Your task to perform on an android device: all mails in gmail Image 0: 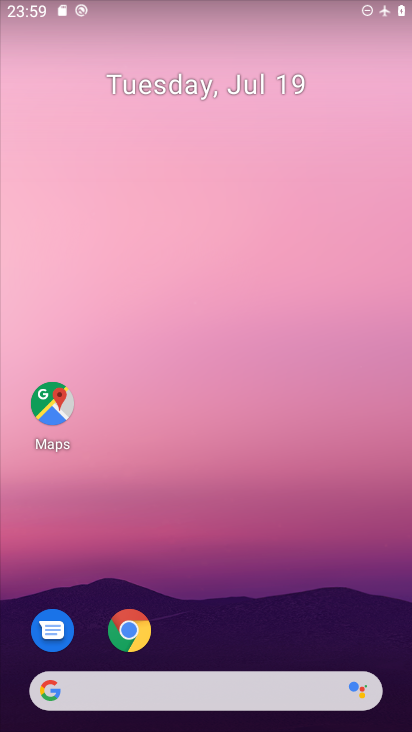
Step 0: drag from (193, 630) to (195, 151)
Your task to perform on an android device: all mails in gmail Image 1: 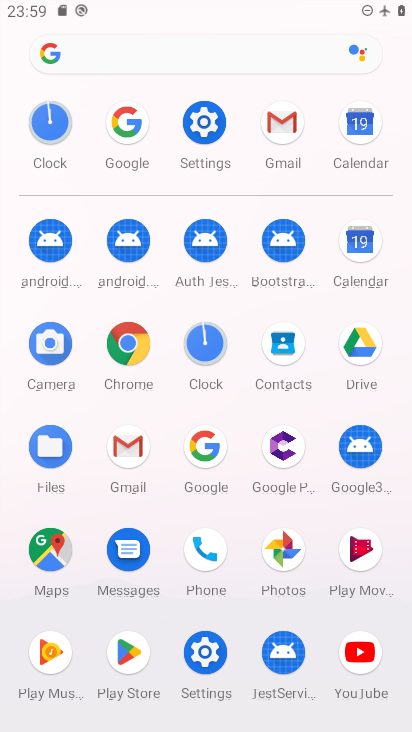
Step 1: click (289, 153)
Your task to perform on an android device: all mails in gmail Image 2: 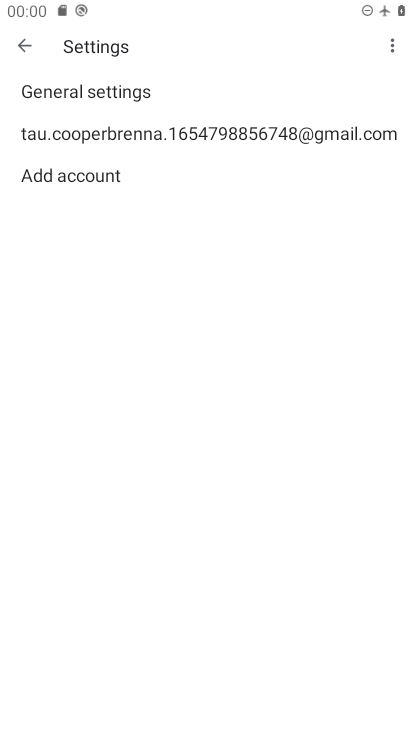
Step 2: click (21, 42)
Your task to perform on an android device: all mails in gmail Image 3: 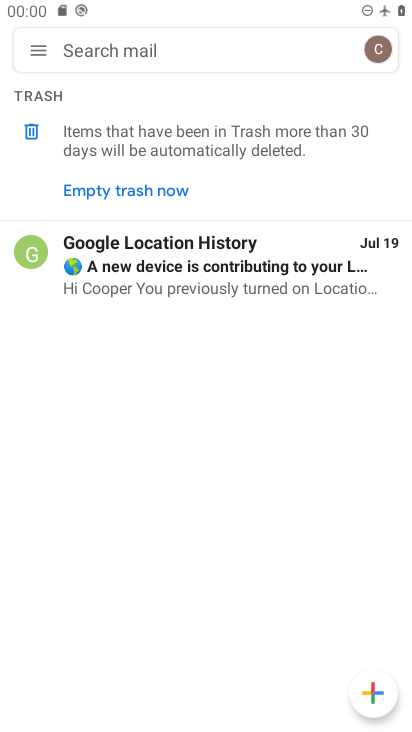
Step 3: click (21, 42)
Your task to perform on an android device: all mails in gmail Image 4: 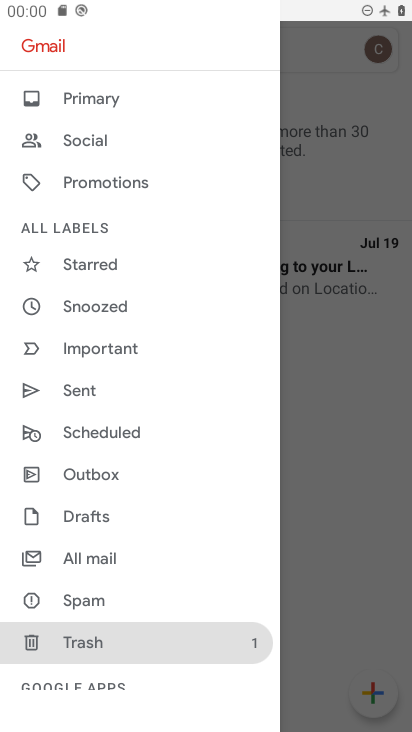
Step 4: click (92, 561)
Your task to perform on an android device: all mails in gmail Image 5: 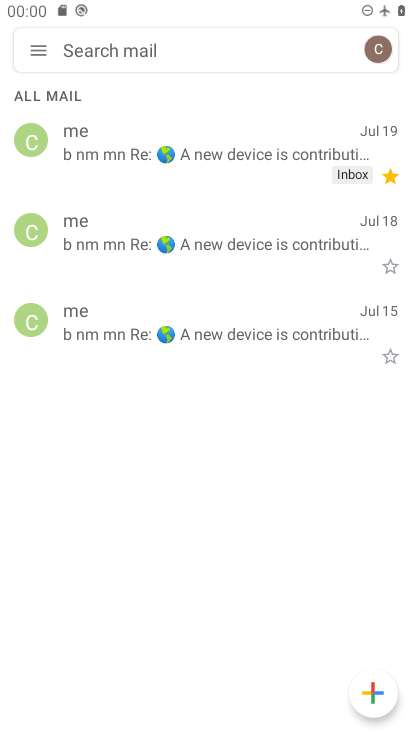
Step 5: task complete